Your task to perform on an android device: Open Google Image 0: 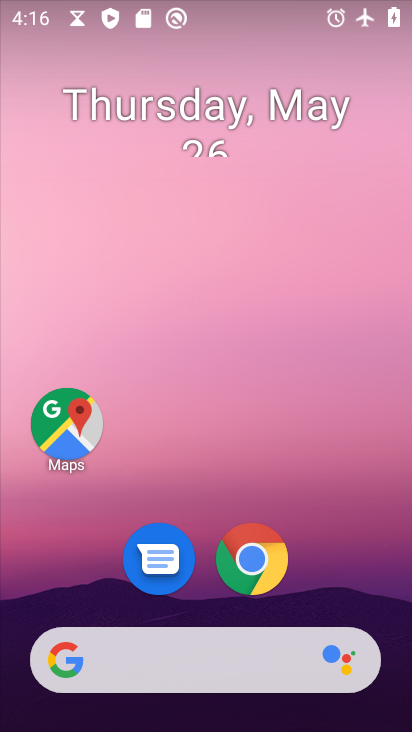
Step 0: drag from (350, 551) to (202, 52)
Your task to perform on an android device: Open Google Image 1: 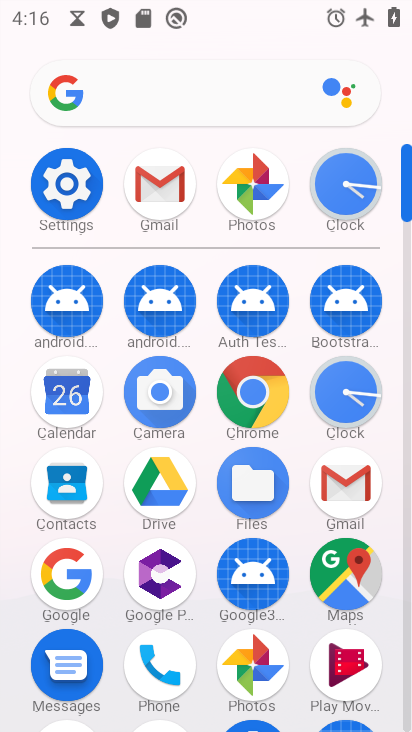
Step 1: click (56, 581)
Your task to perform on an android device: Open Google Image 2: 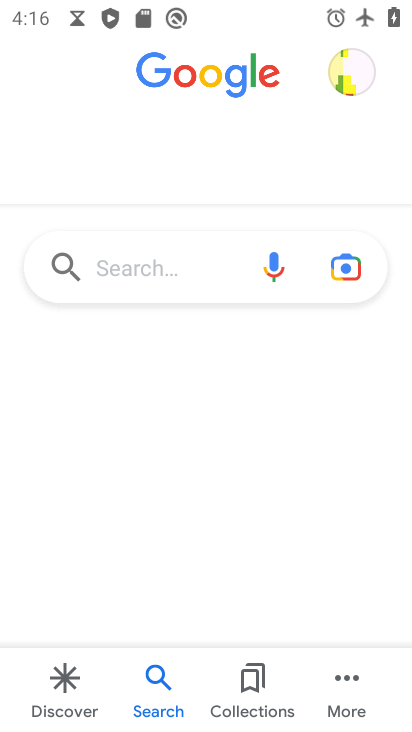
Step 2: task complete